Your task to perform on an android device: turn on airplane mode Image 0: 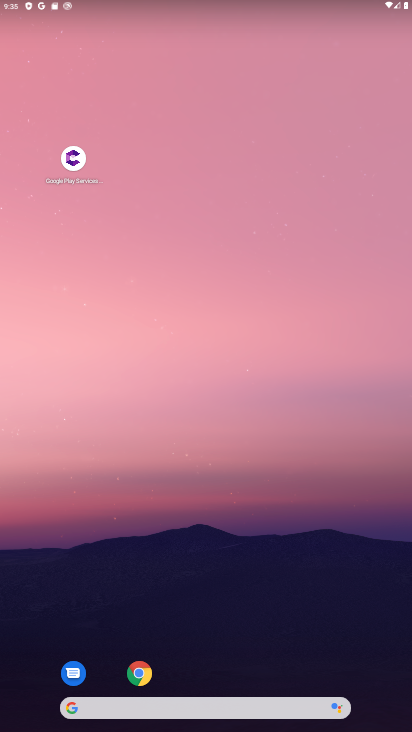
Step 0: drag from (325, 631) to (261, 76)
Your task to perform on an android device: turn on airplane mode Image 1: 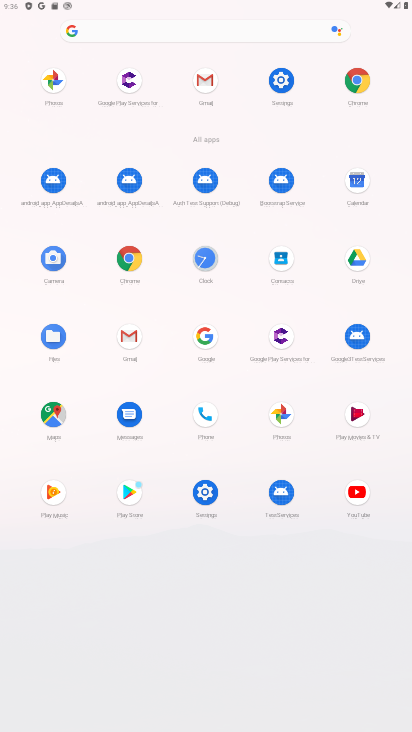
Step 1: click (286, 72)
Your task to perform on an android device: turn on airplane mode Image 2: 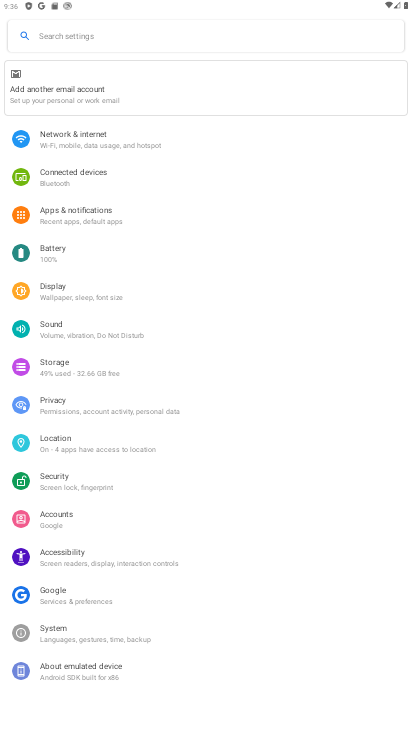
Step 2: click (120, 135)
Your task to perform on an android device: turn on airplane mode Image 3: 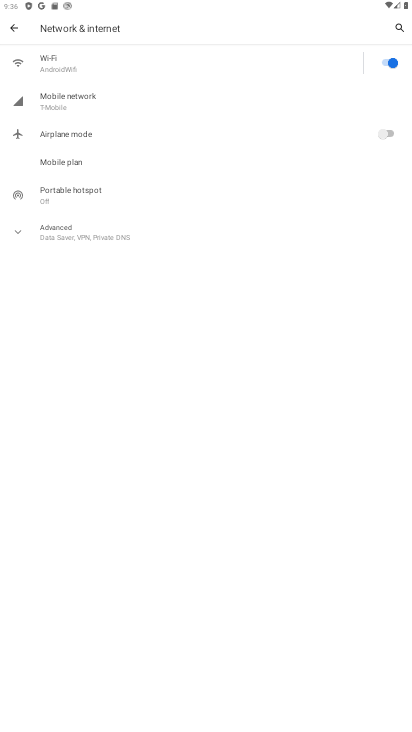
Step 3: click (391, 141)
Your task to perform on an android device: turn on airplane mode Image 4: 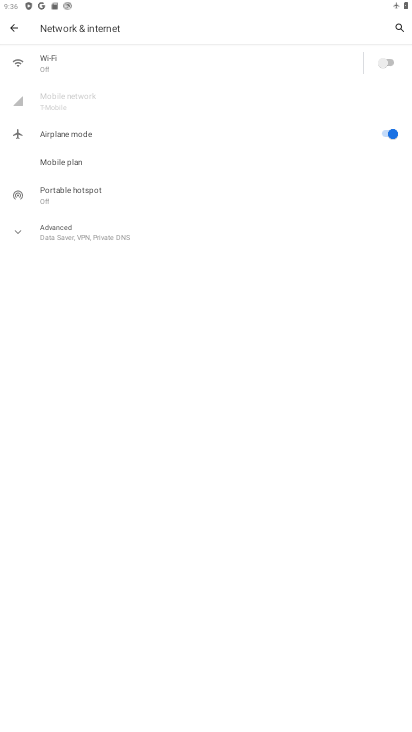
Step 4: task complete